Your task to perform on an android device: turn on improve location accuracy Image 0: 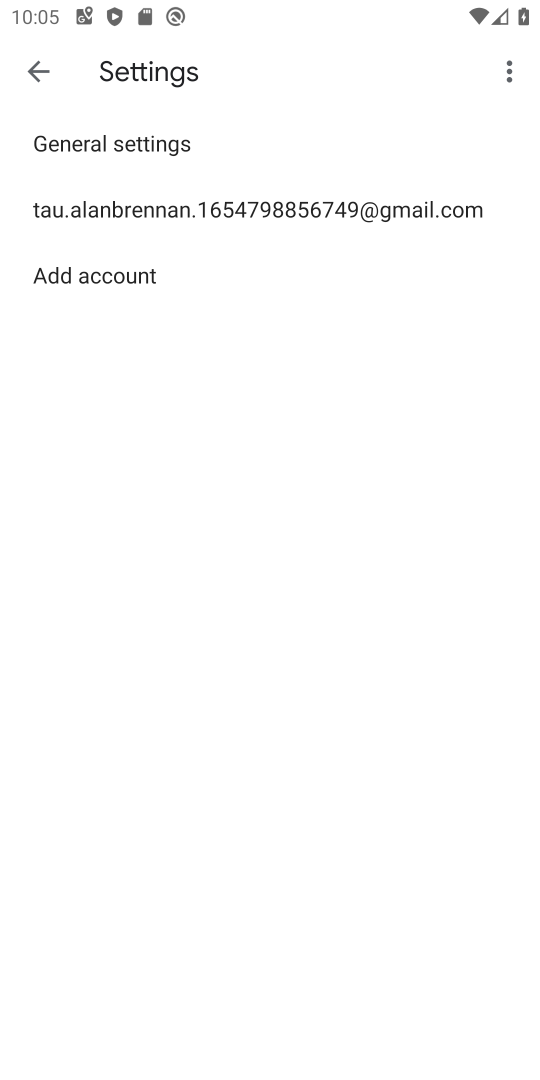
Step 0: press home button
Your task to perform on an android device: turn on improve location accuracy Image 1: 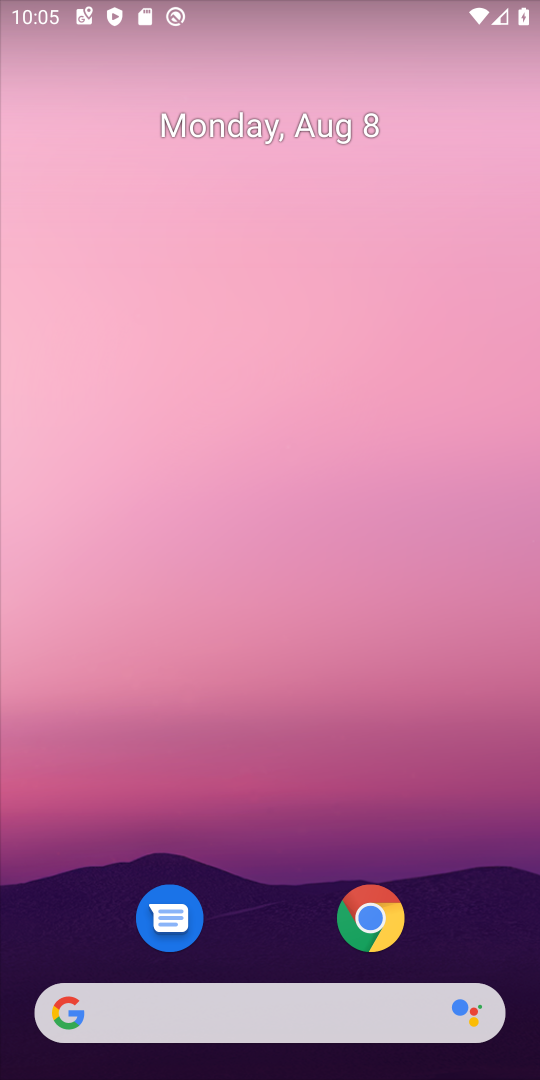
Step 1: drag from (251, 994) to (409, 17)
Your task to perform on an android device: turn on improve location accuracy Image 2: 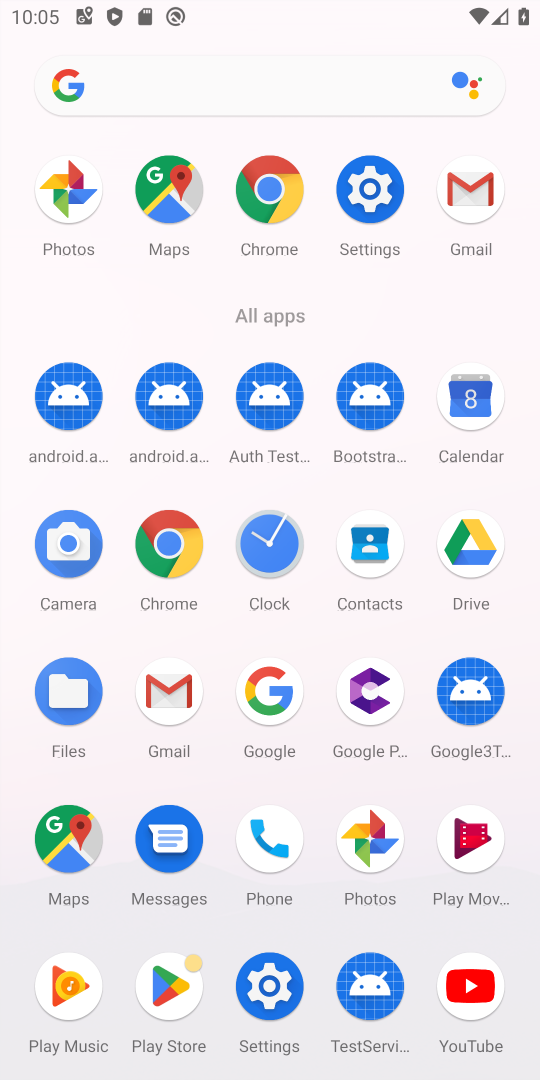
Step 2: click (282, 974)
Your task to perform on an android device: turn on improve location accuracy Image 3: 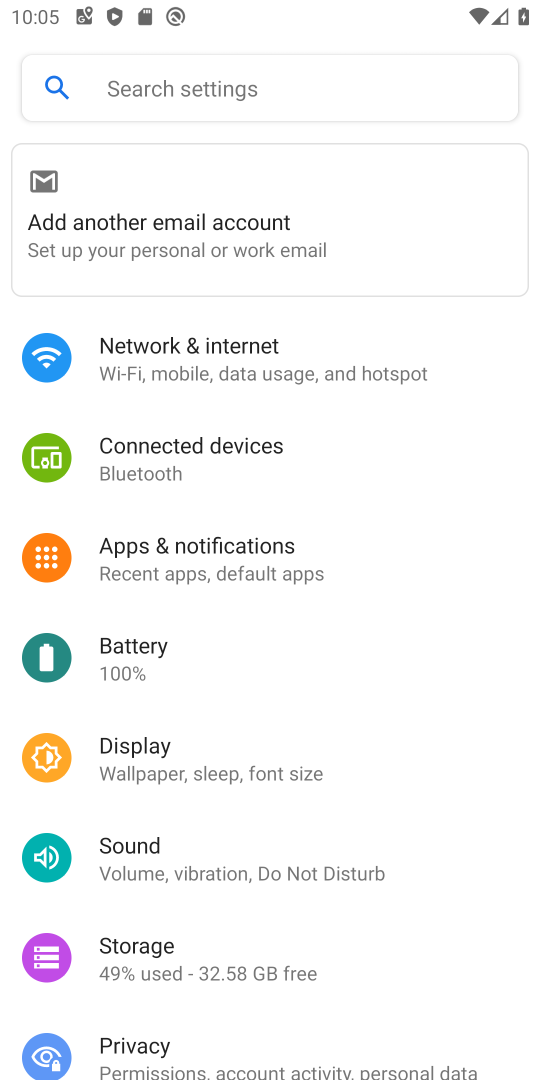
Step 3: drag from (320, 836) to (231, 280)
Your task to perform on an android device: turn on improve location accuracy Image 4: 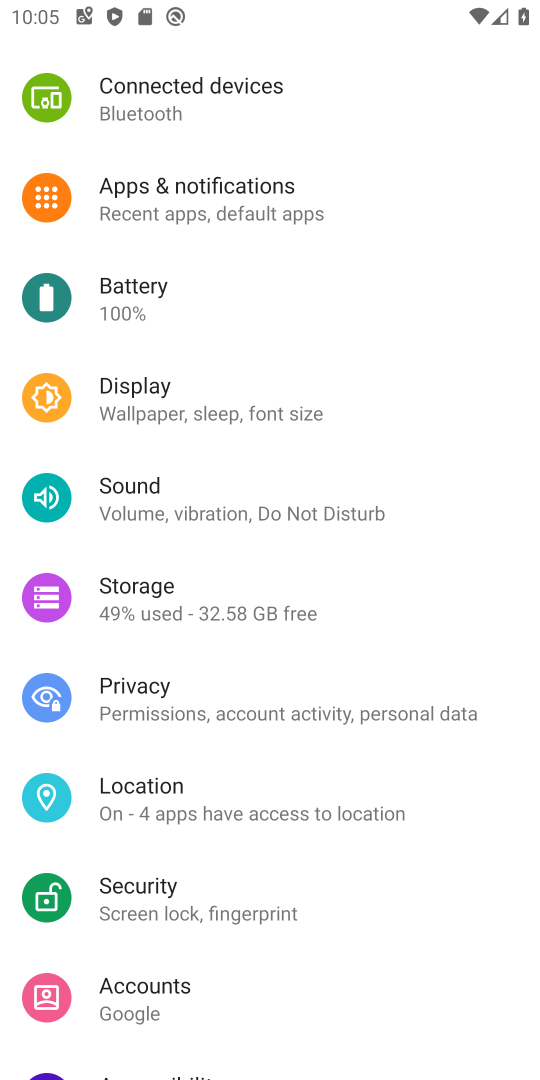
Step 4: click (168, 819)
Your task to perform on an android device: turn on improve location accuracy Image 5: 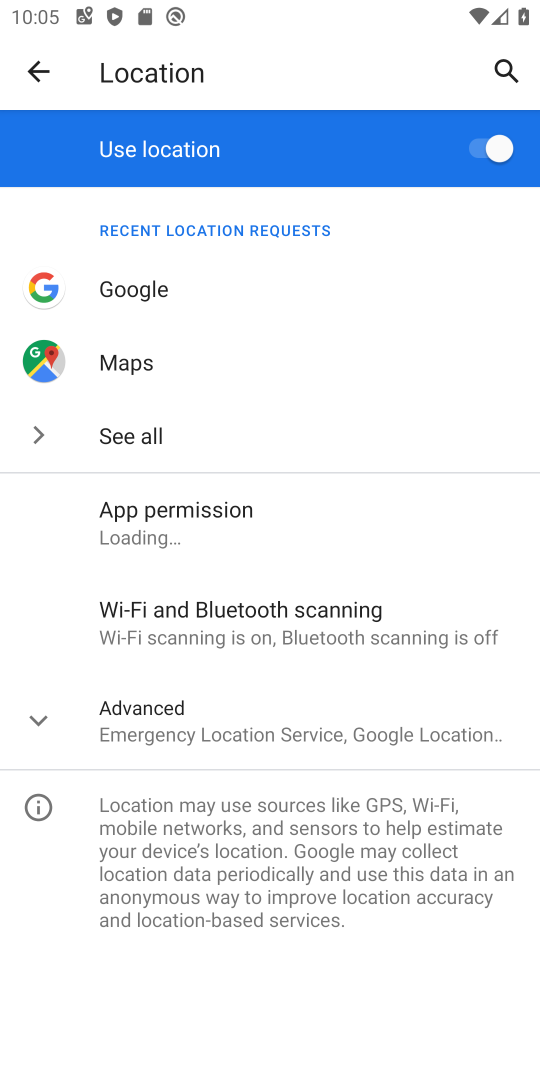
Step 5: click (193, 734)
Your task to perform on an android device: turn on improve location accuracy Image 6: 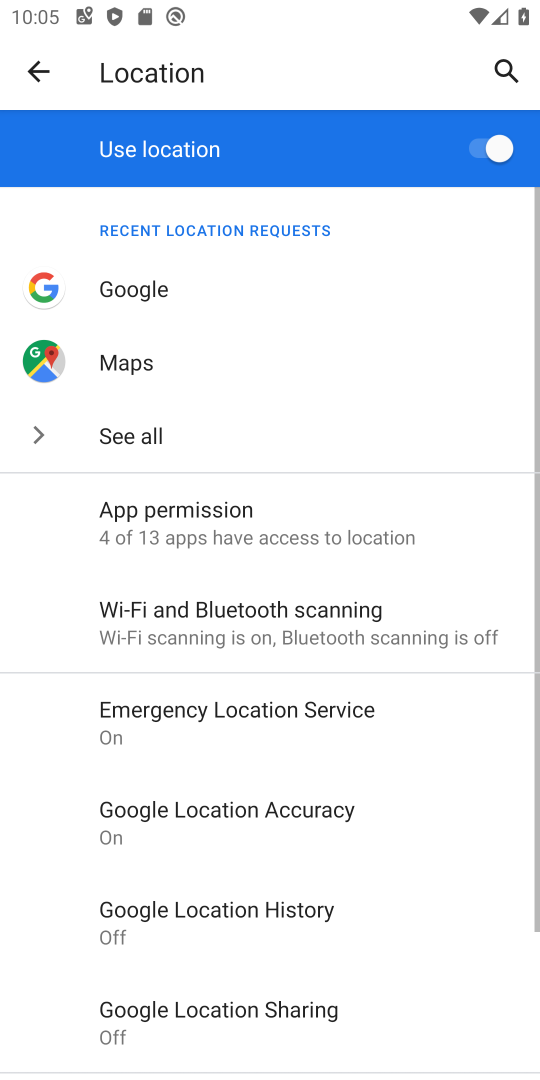
Step 6: click (285, 784)
Your task to perform on an android device: turn on improve location accuracy Image 7: 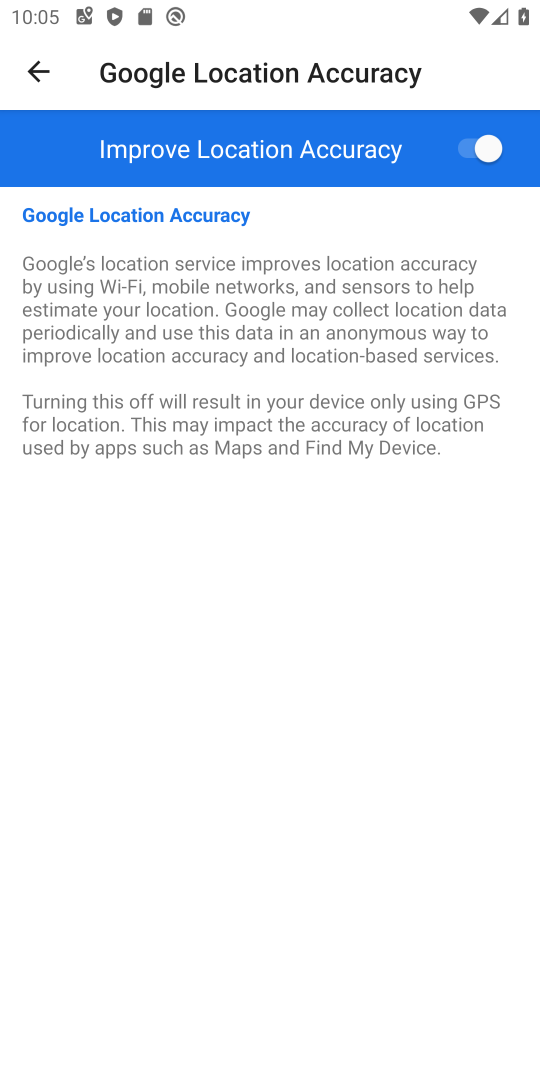
Step 7: task complete